Your task to perform on an android device: Turn off the flashlight Image 0: 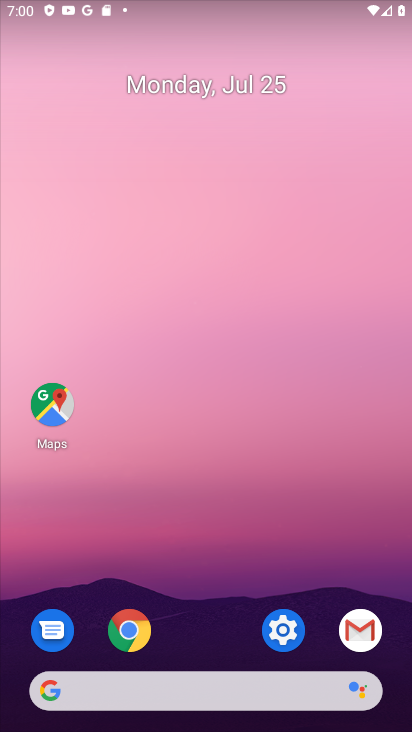
Step 0: press home button
Your task to perform on an android device: Turn off the flashlight Image 1: 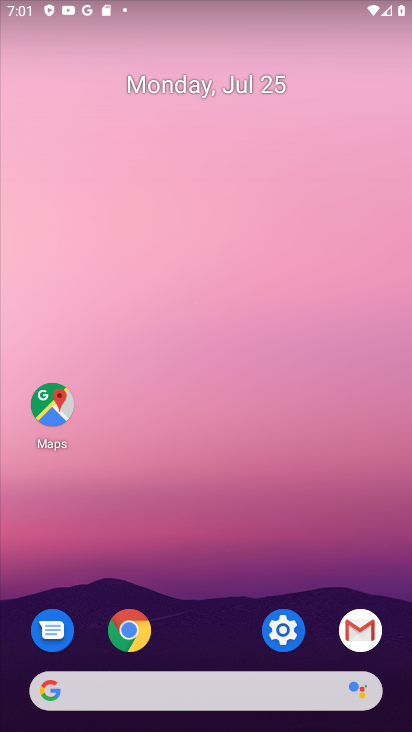
Step 1: click (283, 632)
Your task to perform on an android device: Turn off the flashlight Image 2: 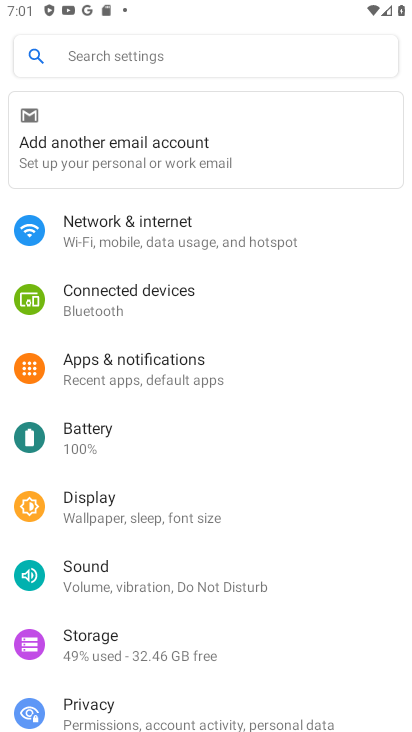
Step 2: click (119, 57)
Your task to perform on an android device: Turn off the flashlight Image 3: 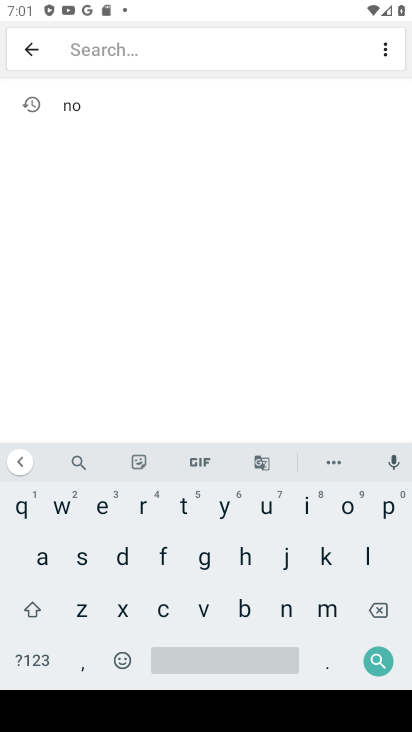
Step 3: click (170, 561)
Your task to perform on an android device: Turn off the flashlight Image 4: 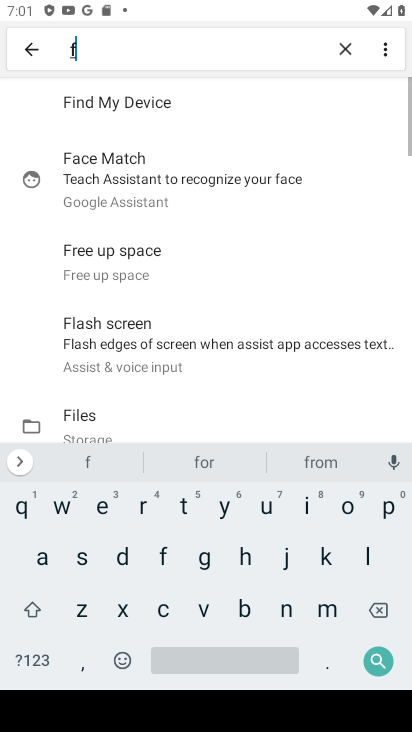
Step 4: click (362, 564)
Your task to perform on an android device: Turn off the flashlight Image 5: 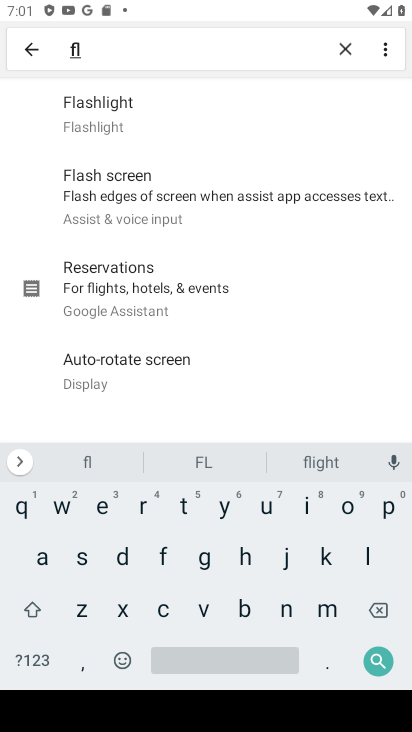
Step 5: click (120, 123)
Your task to perform on an android device: Turn off the flashlight Image 6: 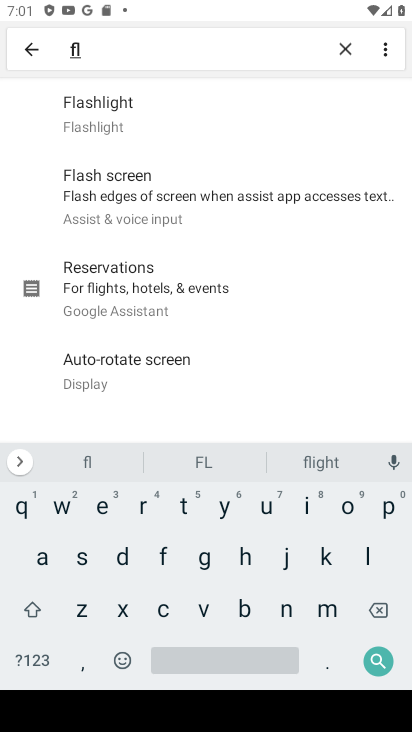
Step 6: task complete